Your task to perform on an android device: change the clock display to analog Image 0: 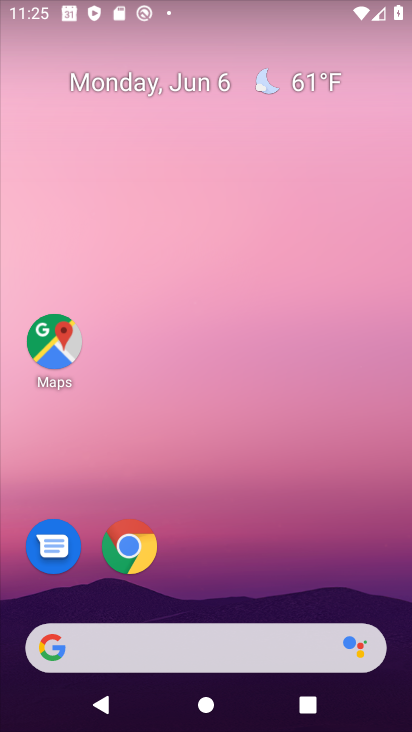
Step 0: drag from (229, 607) to (296, 85)
Your task to perform on an android device: change the clock display to analog Image 1: 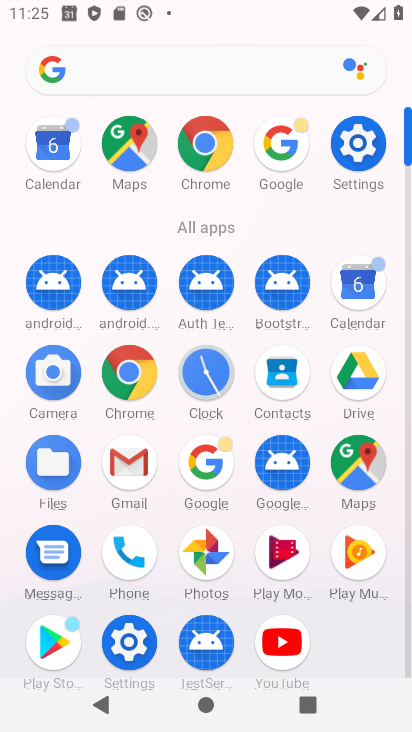
Step 1: click (206, 377)
Your task to perform on an android device: change the clock display to analog Image 2: 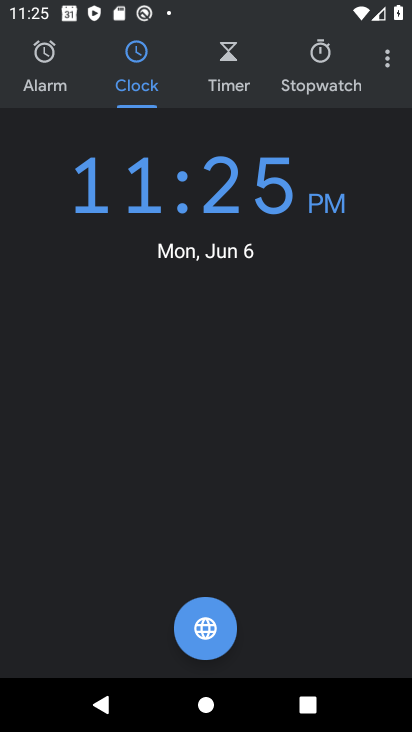
Step 2: click (377, 56)
Your task to perform on an android device: change the clock display to analog Image 3: 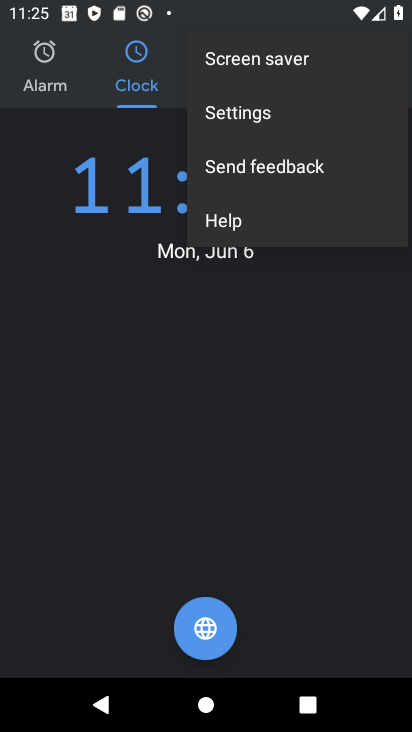
Step 3: click (267, 114)
Your task to perform on an android device: change the clock display to analog Image 4: 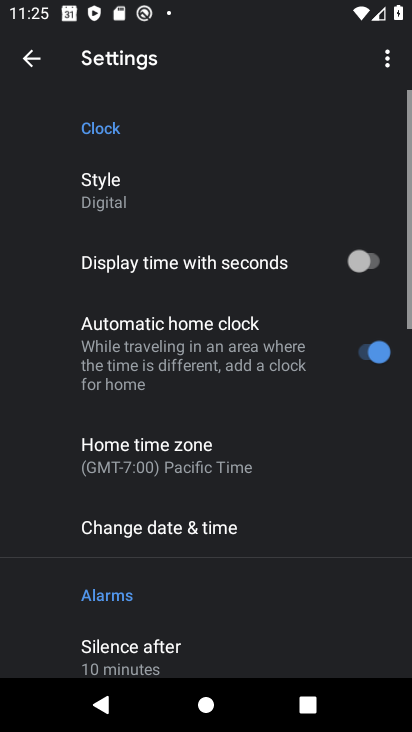
Step 4: click (113, 190)
Your task to perform on an android device: change the clock display to analog Image 5: 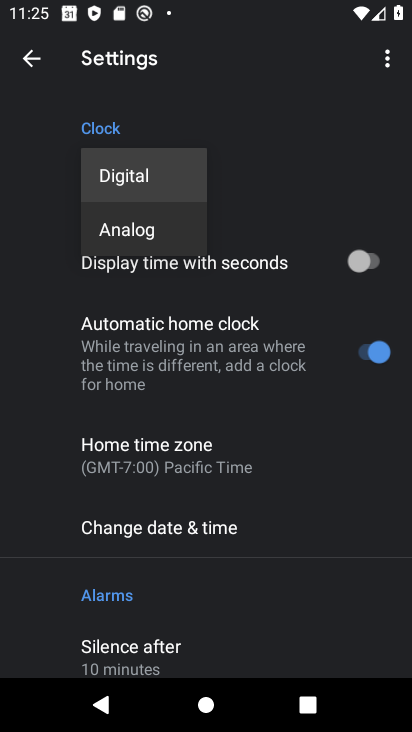
Step 5: click (145, 236)
Your task to perform on an android device: change the clock display to analog Image 6: 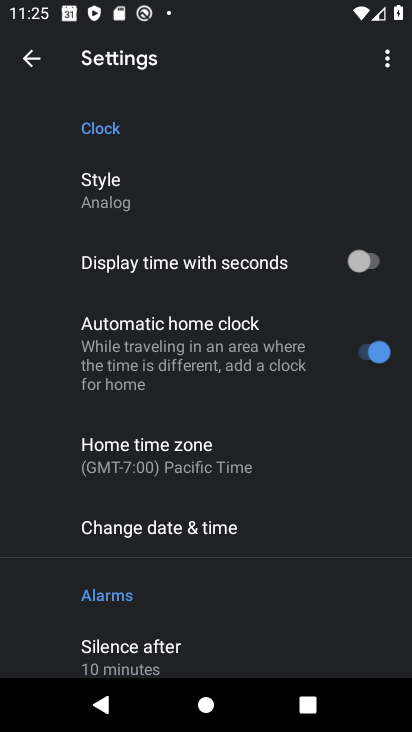
Step 6: task complete